Your task to perform on an android device: What's the weather going to be tomorrow? Image 0: 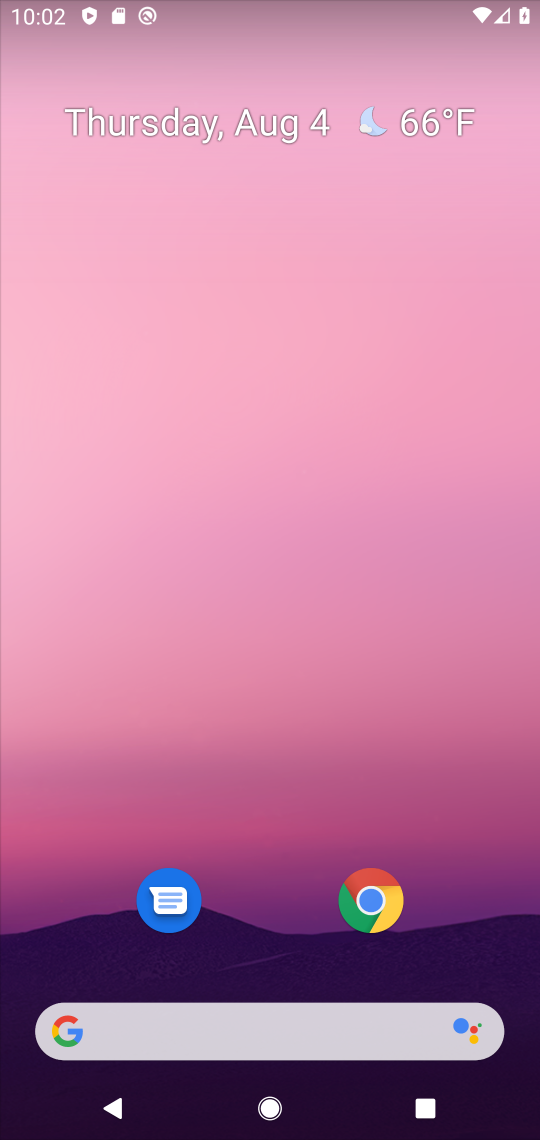
Step 0: click (357, 889)
Your task to perform on an android device: What's the weather going to be tomorrow? Image 1: 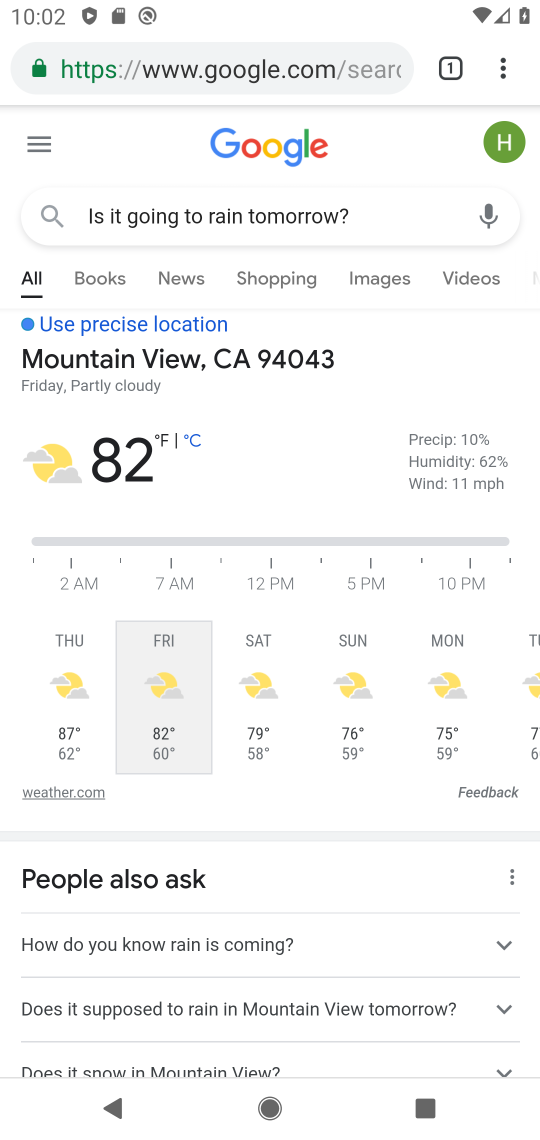
Step 1: click (327, 74)
Your task to perform on an android device: What's the weather going to be tomorrow? Image 2: 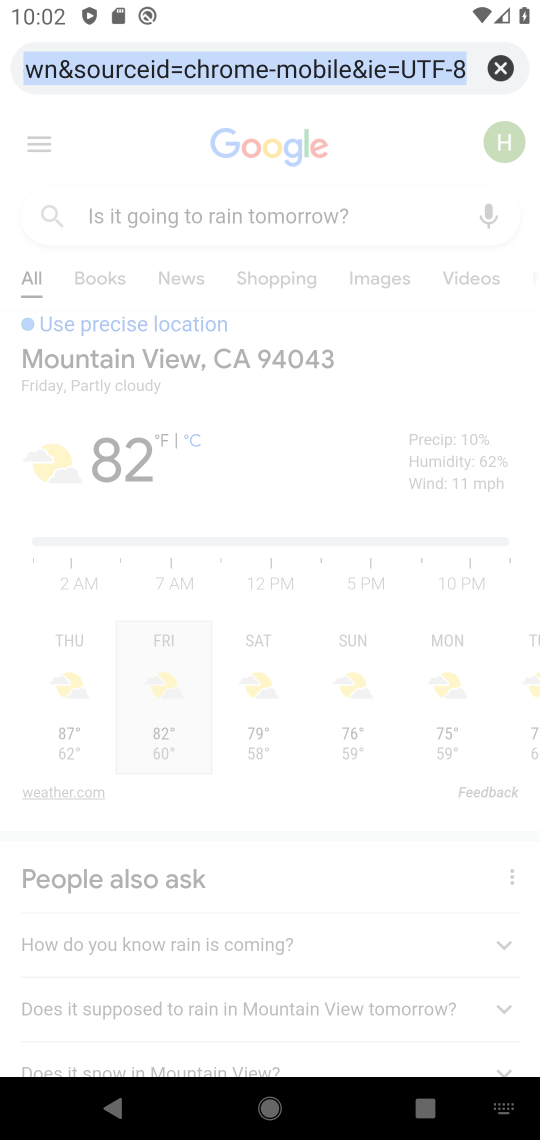
Step 2: type "What's the weather going to be tomorrow?"
Your task to perform on an android device: What's the weather going to be tomorrow? Image 3: 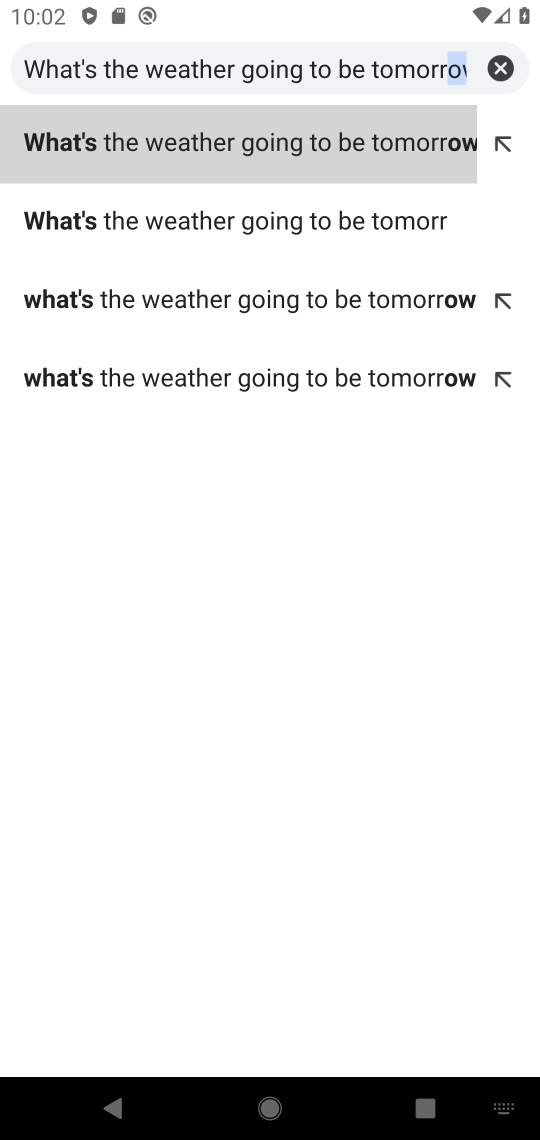
Step 3: click (384, 157)
Your task to perform on an android device: What's the weather going to be tomorrow? Image 4: 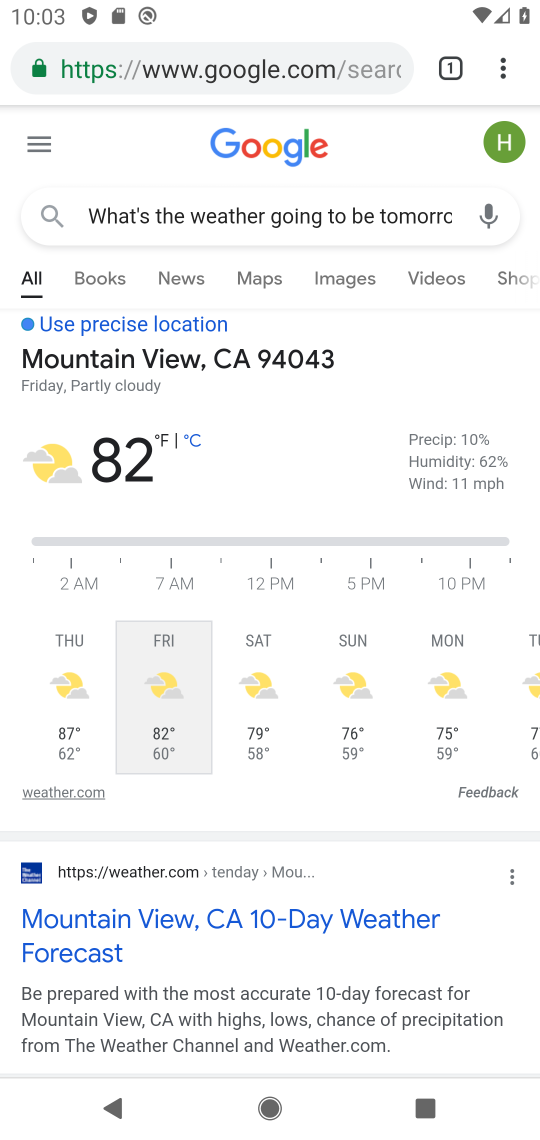
Step 4: task complete